Your task to perform on an android device: Show me popular games on the Play Store Image 0: 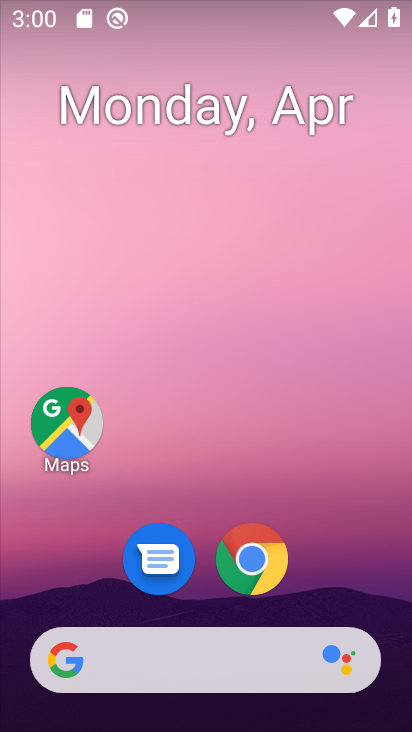
Step 0: drag from (193, 598) to (241, 173)
Your task to perform on an android device: Show me popular games on the Play Store Image 1: 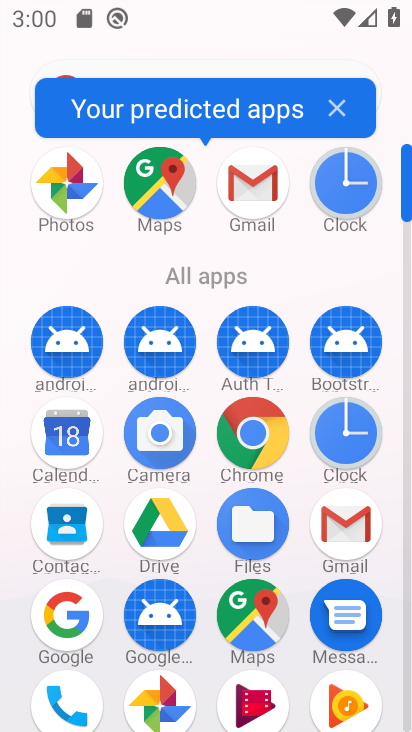
Step 1: drag from (207, 639) to (297, 212)
Your task to perform on an android device: Show me popular games on the Play Store Image 2: 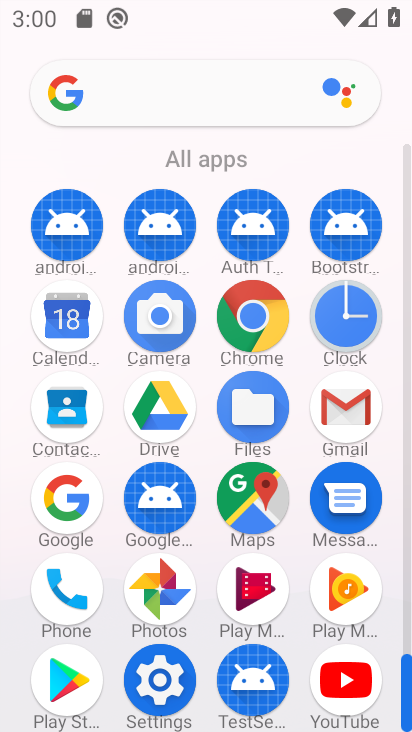
Step 2: drag from (204, 629) to (313, 288)
Your task to perform on an android device: Show me popular games on the Play Store Image 3: 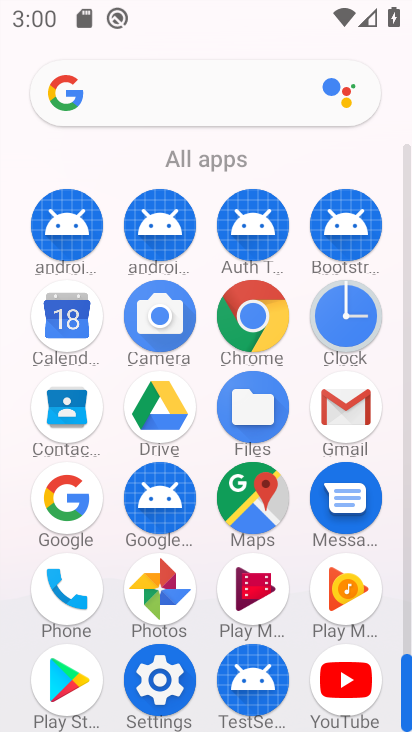
Step 3: click (69, 660)
Your task to perform on an android device: Show me popular games on the Play Store Image 4: 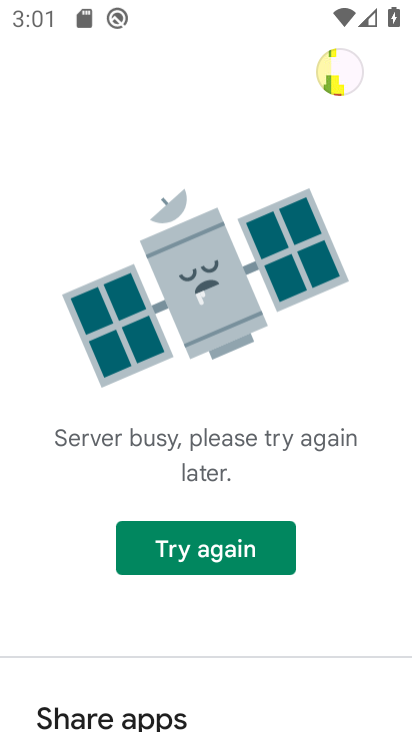
Step 4: click (238, 541)
Your task to perform on an android device: Show me popular games on the Play Store Image 5: 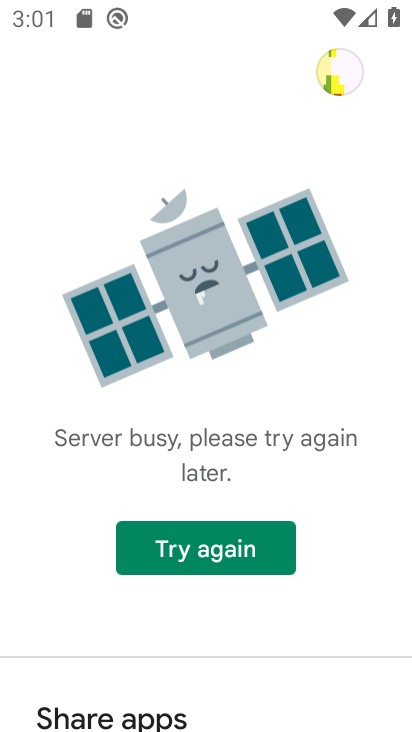
Step 5: drag from (190, 653) to (244, 386)
Your task to perform on an android device: Show me popular games on the Play Store Image 6: 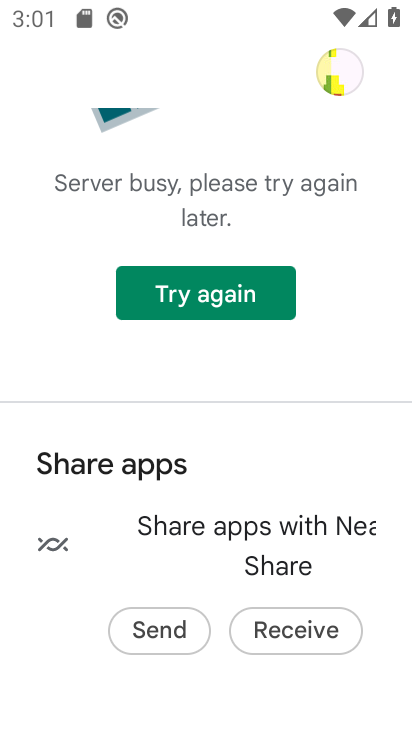
Step 6: press back button
Your task to perform on an android device: Show me popular games on the Play Store Image 7: 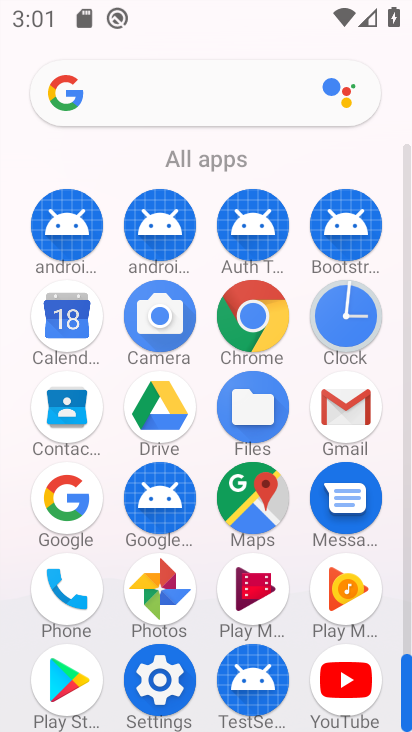
Step 7: click (72, 672)
Your task to perform on an android device: Show me popular games on the Play Store Image 8: 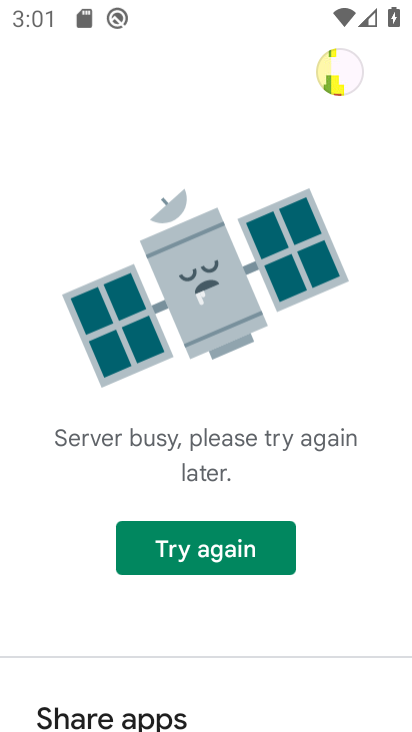
Step 8: click (205, 551)
Your task to perform on an android device: Show me popular games on the Play Store Image 9: 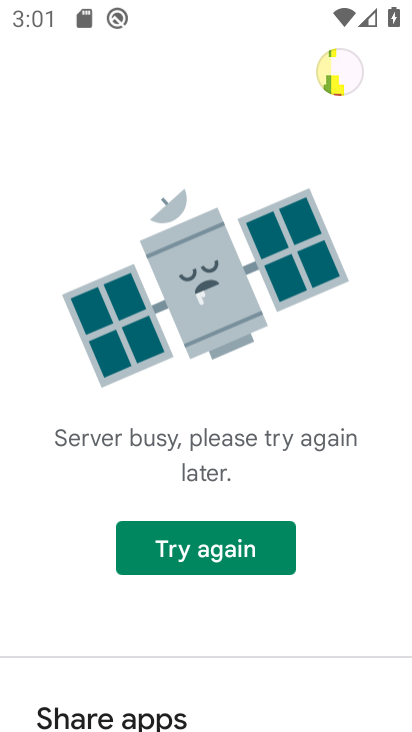
Step 9: task complete